Your task to perform on an android device: find photos in the google photos app Image 0: 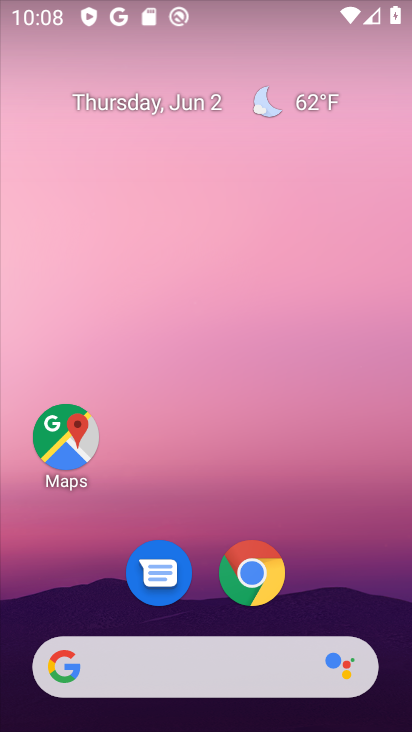
Step 0: drag from (219, 636) to (141, 76)
Your task to perform on an android device: find photos in the google photos app Image 1: 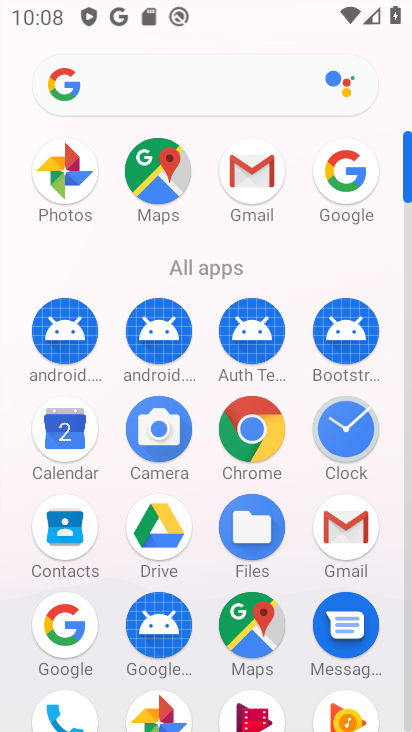
Step 1: click (153, 699)
Your task to perform on an android device: find photos in the google photos app Image 2: 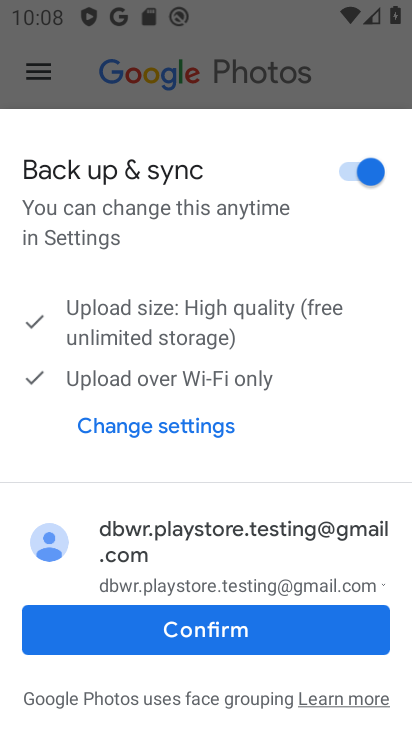
Step 2: click (207, 624)
Your task to perform on an android device: find photos in the google photos app Image 3: 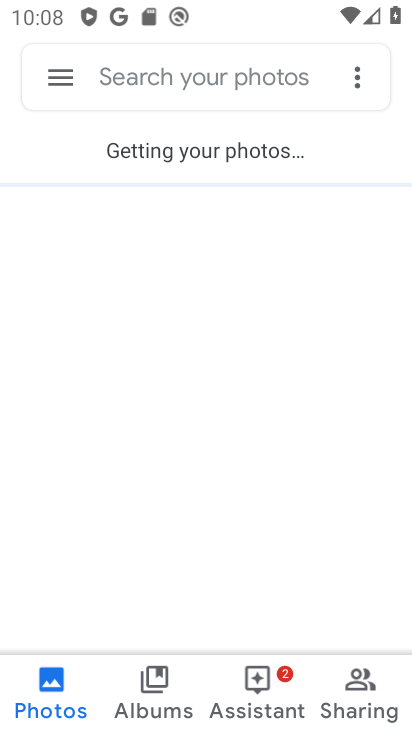
Step 3: click (166, 703)
Your task to perform on an android device: find photos in the google photos app Image 4: 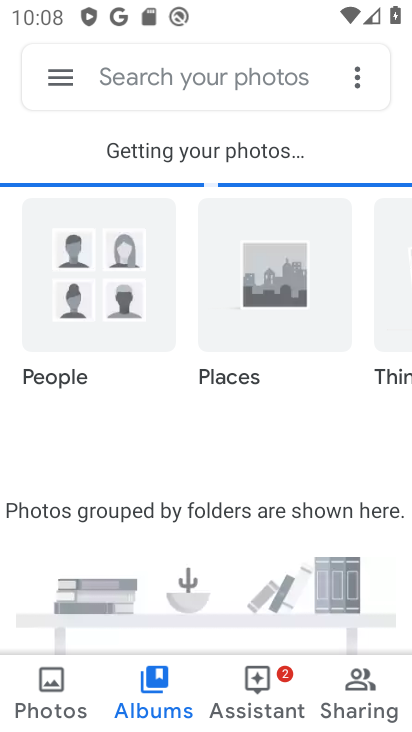
Step 4: click (69, 685)
Your task to perform on an android device: find photos in the google photos app Image 5: 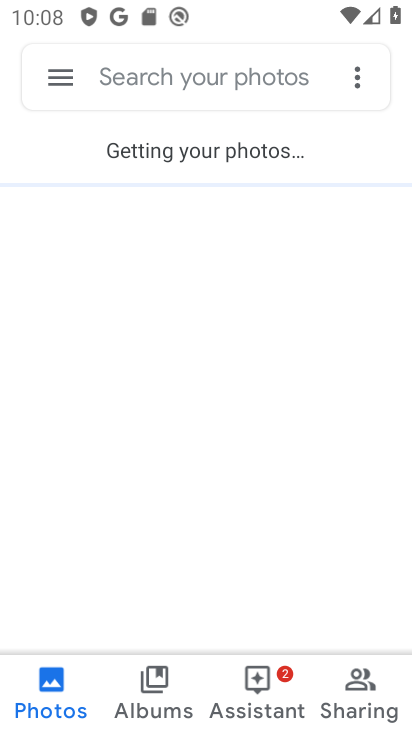
Step 5: task complete